Your task to perform on an android device: Open the phone app and click the voicemail tab. Image 0: 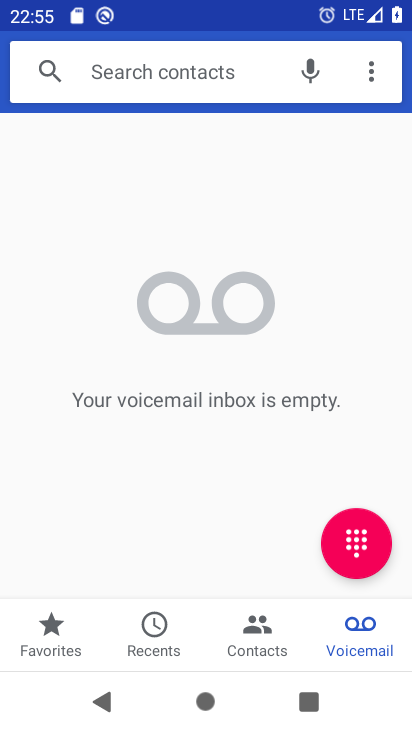
Step 0: press home button
Your task to perform on an android device: Open the phone app and click the voicemail tab. Image 1: 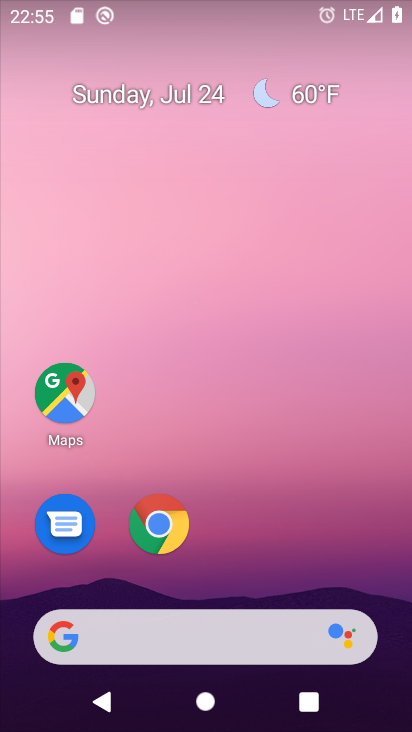
Step 1: drag from (242, 513) to (292, 26)
Your task to perform on an android device: Open the phone app and click the voicemail tab. Image 2: 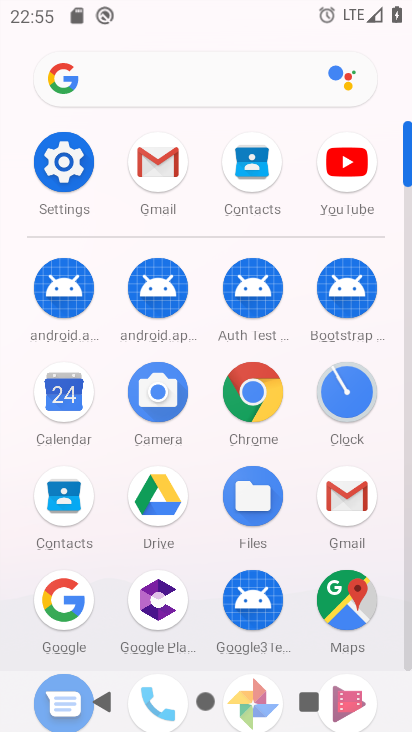
Step 2: drag from (117, 524) to (147, 283)
Your task to perform on an android device: Open the phone app and click the voicemail tab. Image 3: 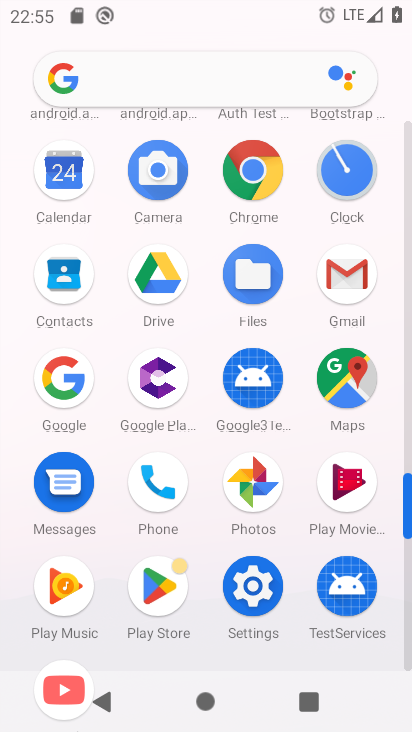
Step 3: click (159, 480)
Your task to perform on an android device: Open the phone app and click the voicemail tab. Image 4: 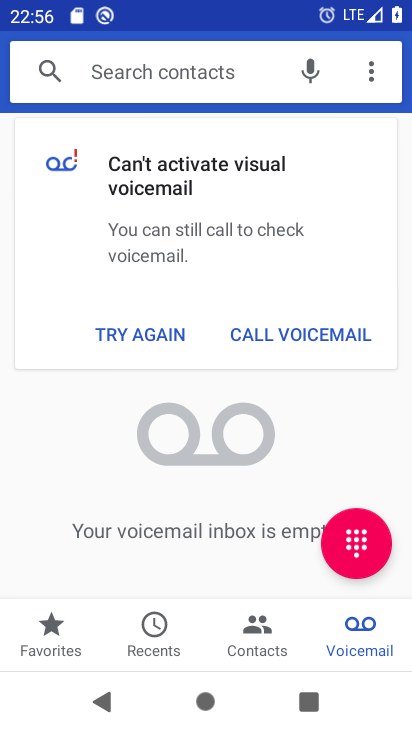
Step 4: click (349, 625)
Your task to perform on an android device: Open the phone app and click the voicemail tab. Image 5: 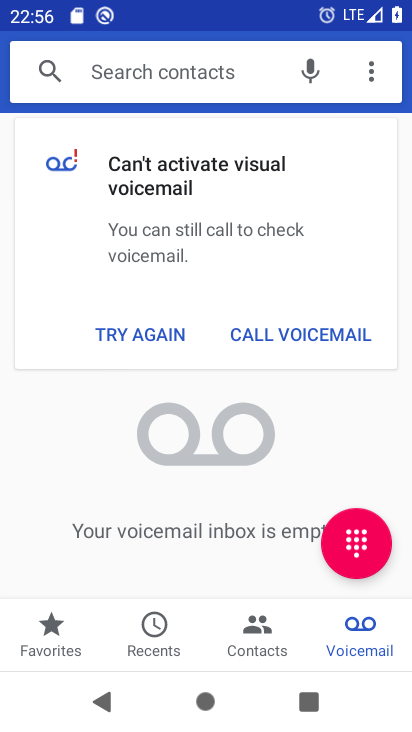
Step 5: task complete